Your task to perform on an android device: turn smart compose on in the gmail app Image 0: 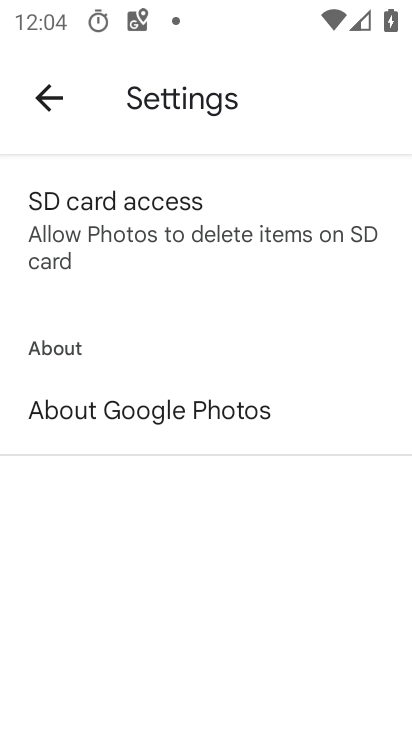
Step 0: press home button
Your task to perform on an android device: turn smart compose on in the gmail app Image 1: 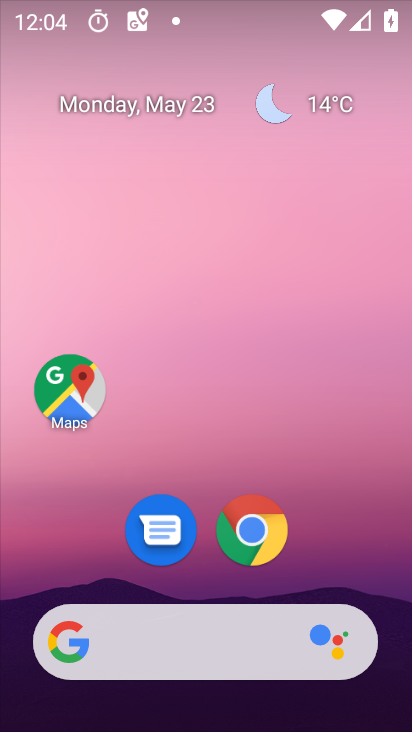
Step 1: drag from (399, 703) to (322, 21)
Your task to perform on an android device: turn smart compose on in the gmail app Image 2: 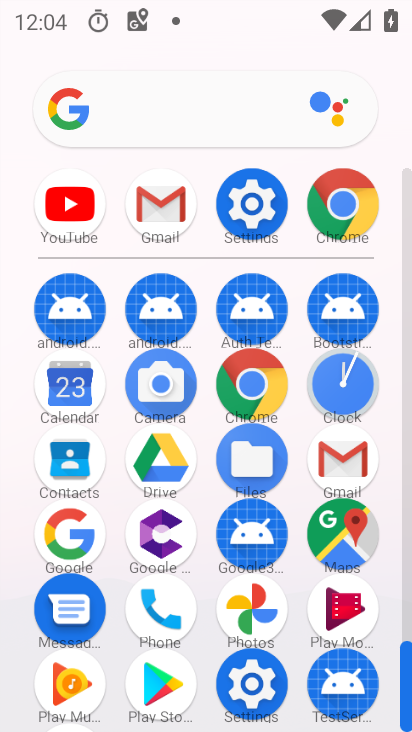
Step 2: click (344, 466)
Your task to perform on an android device: turn smart compose on in the gmail app Image 3: 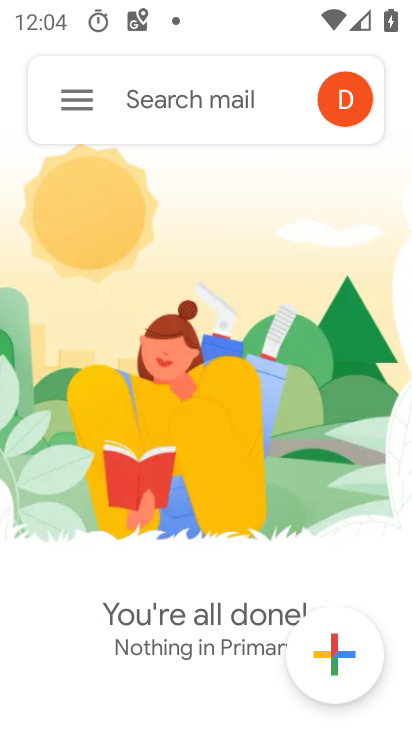
Step 3: click (77, 101)
Your task to perform on an android device: turn smart compose on in the gmail app Image 4: 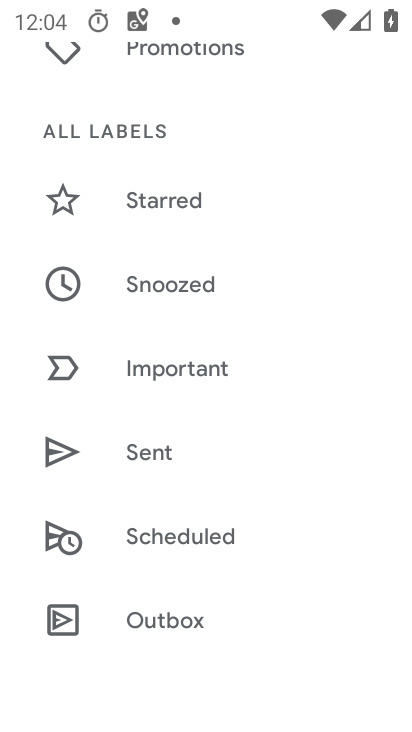
Step 4: drag from (305, 643) to (256, 83)
Your task to perform on an android device: turn smart compose on in the gmail app Image 5: 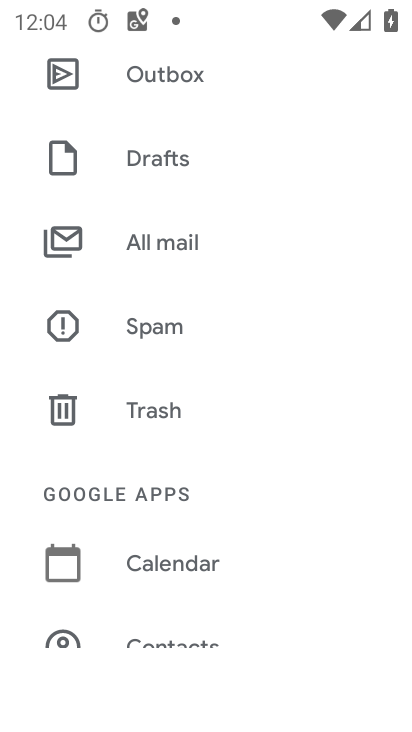
Step 5: drag from (320, 613) to (320, 137)
Your task to perform on an android device: turn smart compose on in the gmail app Image 6: 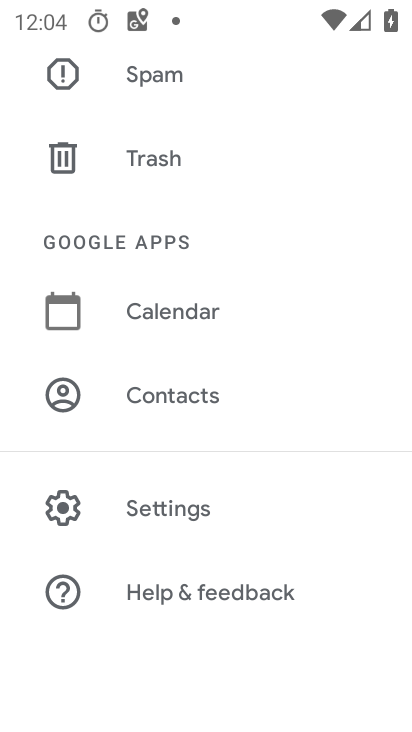
Step 6: click (173, 468)
Your task to perform on an android device: turn smart compose on in the gmail app Image 7: 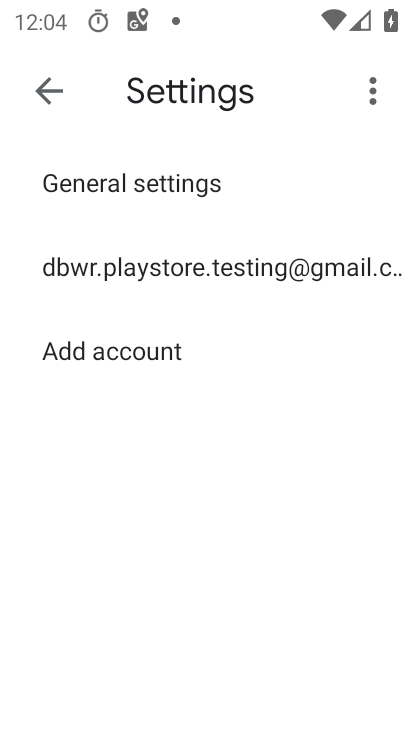
Step 7: click (170, 269)
Your task to perform on an android device: turn smart compose on in the gmail app Image 8: 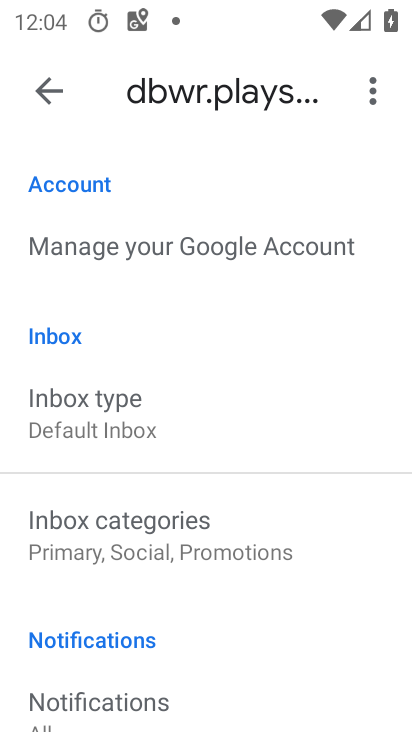
Step 8: task complete